Your task to perform on an android device: change your default location settings in chrome Image 0: 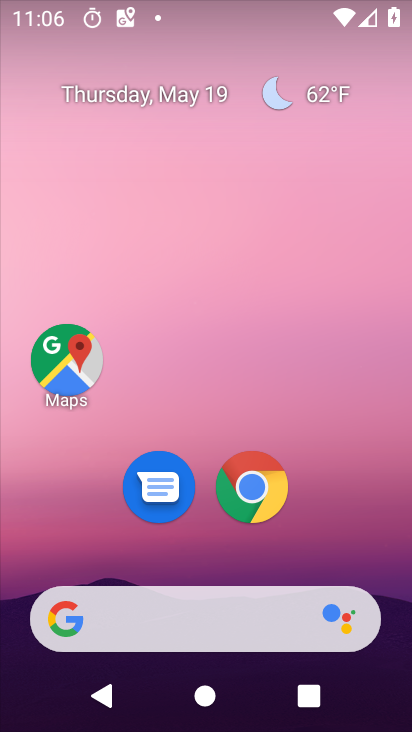
Step 0: click (247, 488)
Your task to perform on an android device: change your default location settings in chrome Image 1: 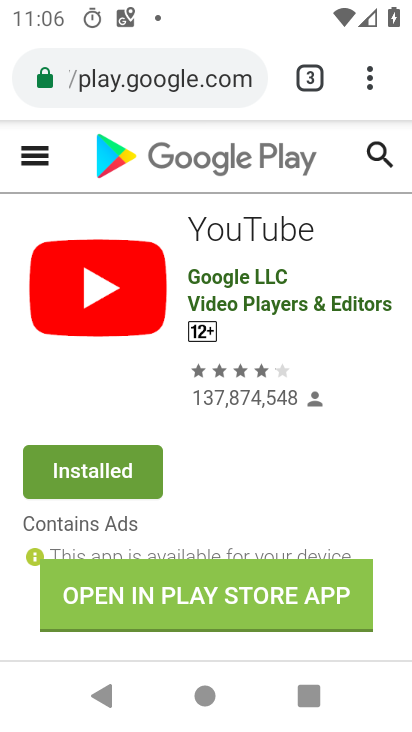
Step 1: click (370, 81)
Your task to perform on an android device: change your default location settings in chrome Image 2: 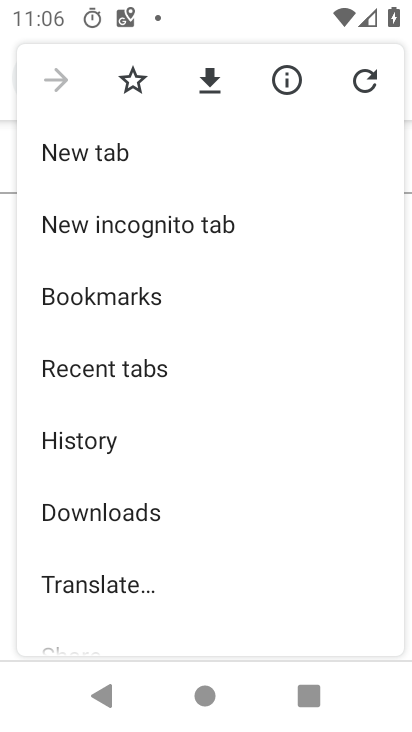
Step 2: drag from (198, 576) to (168, 369)
Your task to perform on an android device: change your default location settings in chrome Image 3: 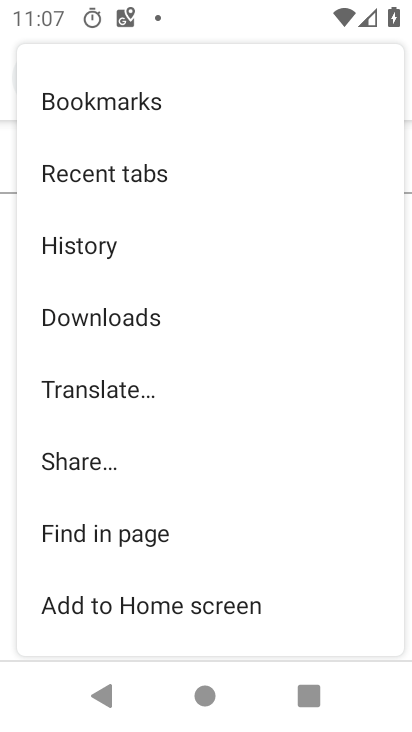
Step 3: drag from (241, 549) to (184, 329)
Your task to perform on an android device: change your default location settings in chrome Image 4: 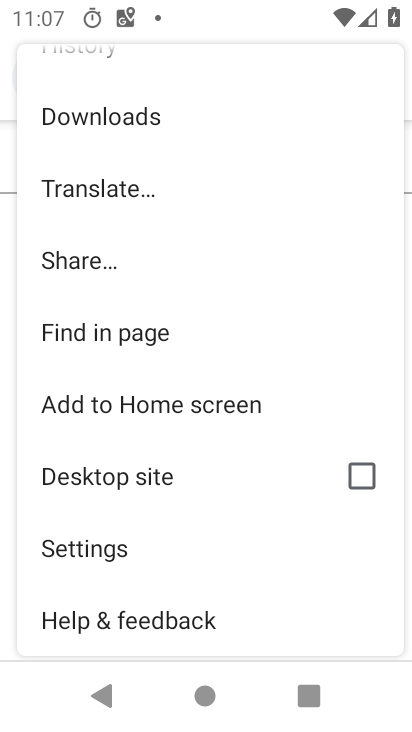
Step 4: click (94, 547)
Your task to perform on an android device: change your default location settings in chrome Image 5: 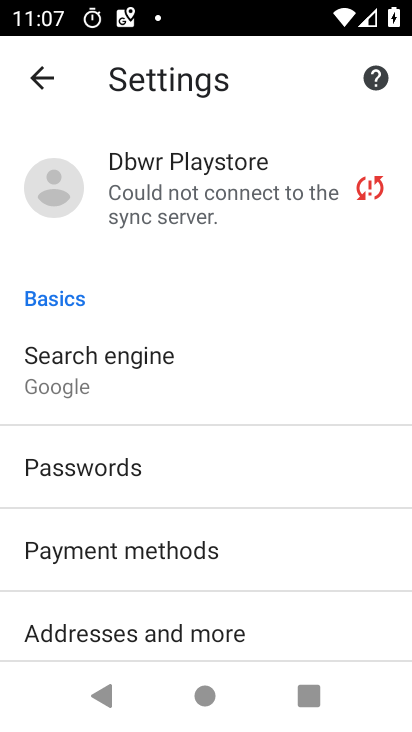
Step 5: drag from (290, 524) to (302, 440)
Your task to perform on an android device: change your default location settings in chrome Image 6: 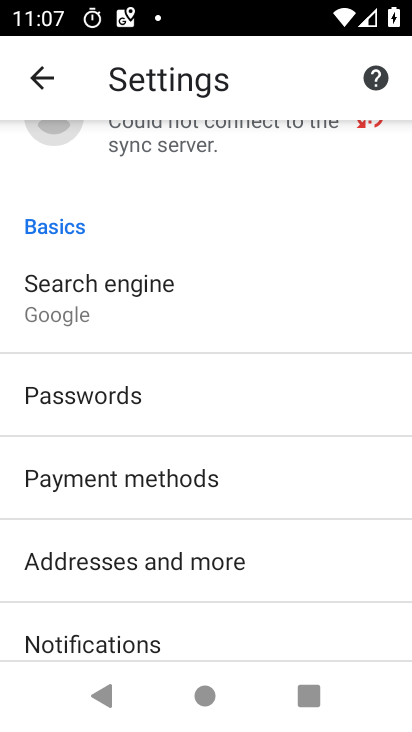
Step 6: drag from (261, 541) to (211, 350)
Your task to perform on an android device: change your default location settings in chrome Image 7: 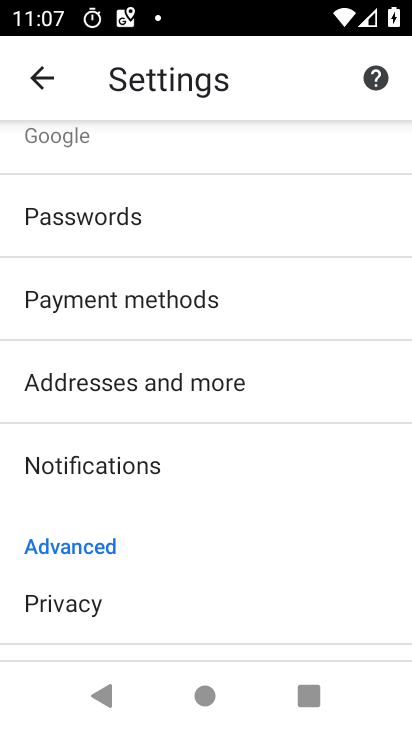
Step 7: drag from (191, 573) to (223, 259)
Your task to perform on an android device: change your default location settings in chrome Image 8: 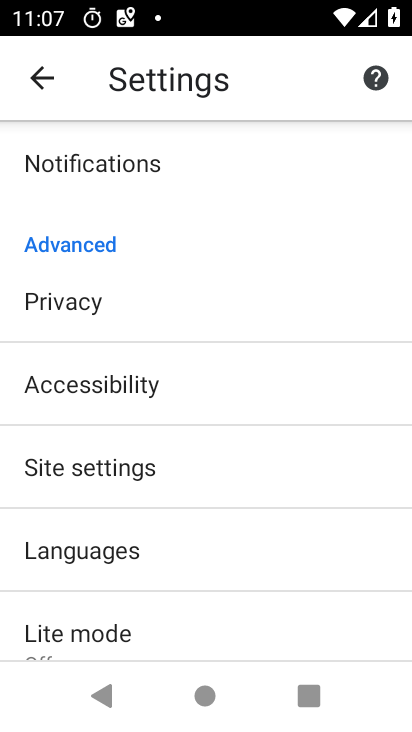
Step 8: click (156, 301)
Your task to perform on an android device: change your default location settings in chrome Image 9: 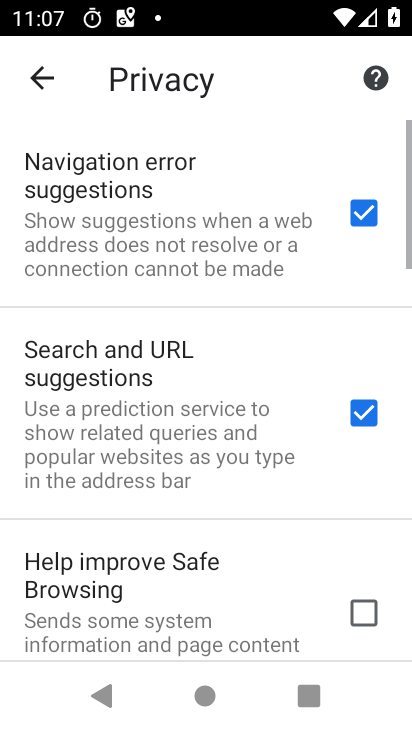
Step 9: drag from (158, 511) to (171, 375)
Your task to perform on an android device: change your default location settings in chrome Image 10: 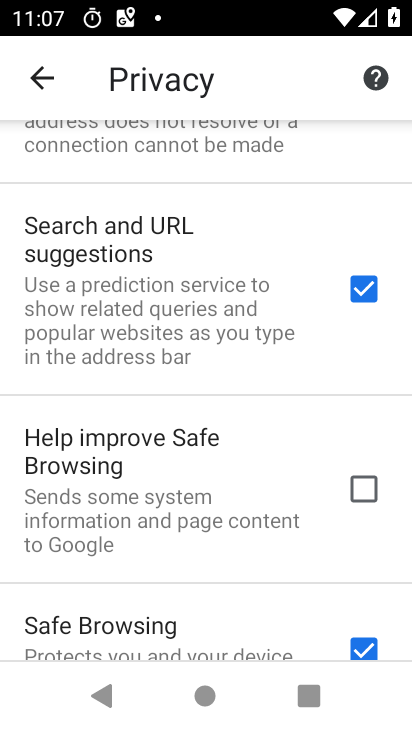
Step 10: drag from (137, 525) to (125, 311)
Your task to perform on an android device: change your default location settings in chrome Image 11: 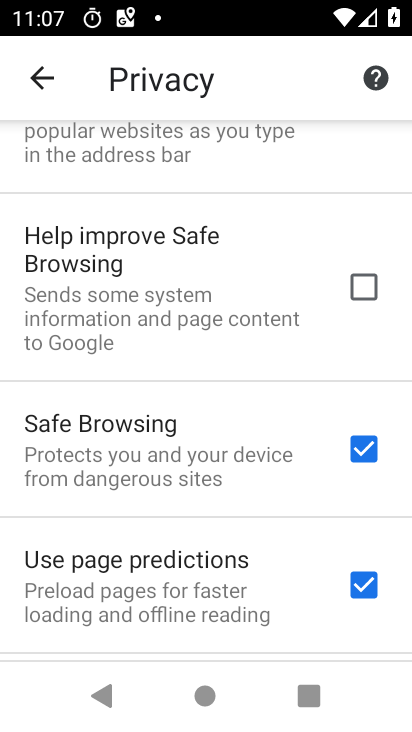
Step 11: drag from (156, 480) to (206, 258)
Your task to perform on an android device: change your default location settings in chrome Image 12: 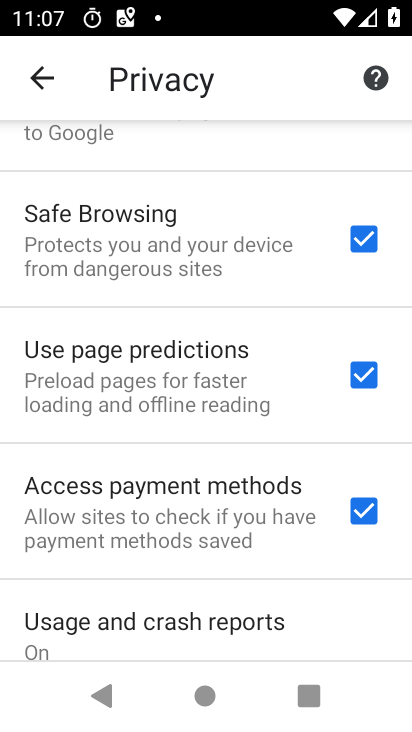
Step 12: drag from (127, 529) to (219, 197)
Your task to perform on an android device: change your default location settings in chrome Image 13: 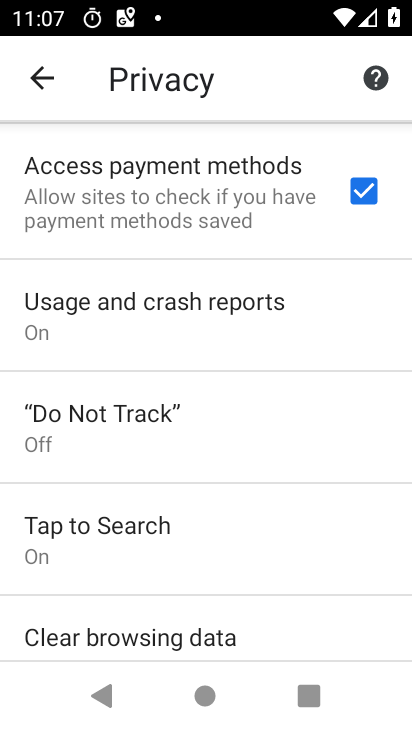
Step 13: drag from (188, 595) to (192, 379)
Your task to perform on an android device: change your default location settings in chrome Image 14: 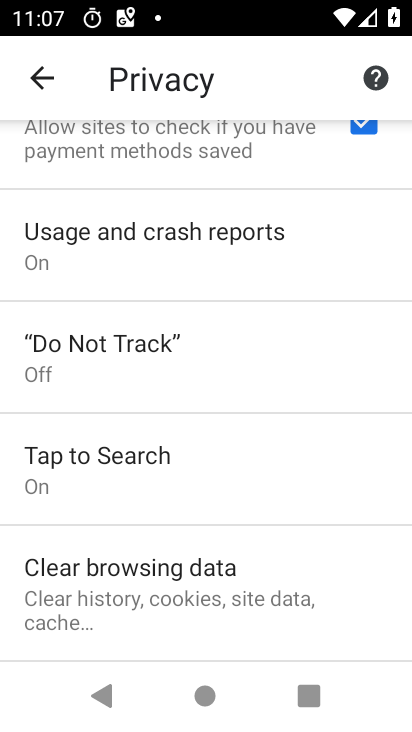
Step 14: press back button
Your task to perform on an android device: change your default location settings in chrome Image 15: 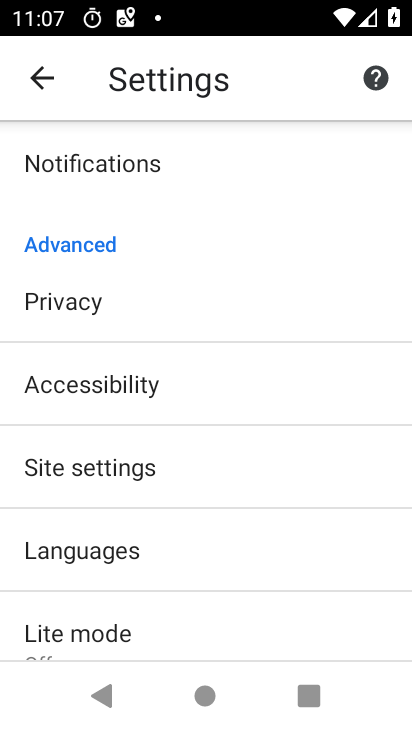
Step 15: click (108, 469)
Your task to perform on an android device: change your default location settings in chrome Image 16: 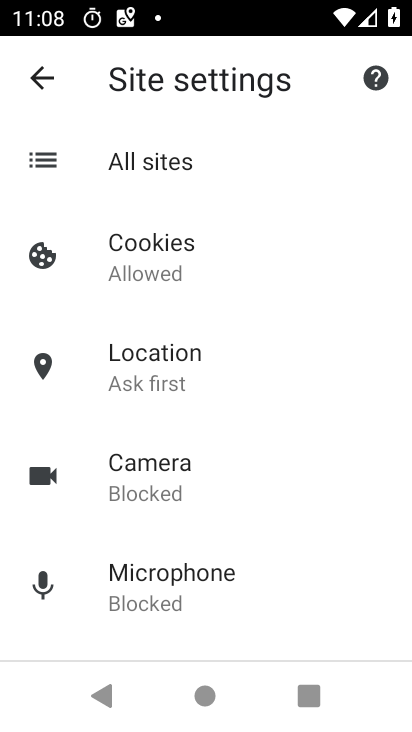
Step 16: click (165, 390)
Your task to perform on an android device: change your default location settings in chrome Image 17: 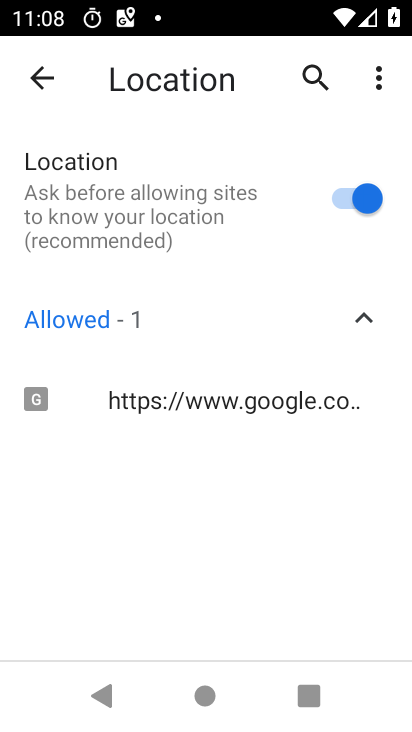
Step 17: click (370, 194)
Your task to perform on an android device: change your default location settings in chrome Image 18: 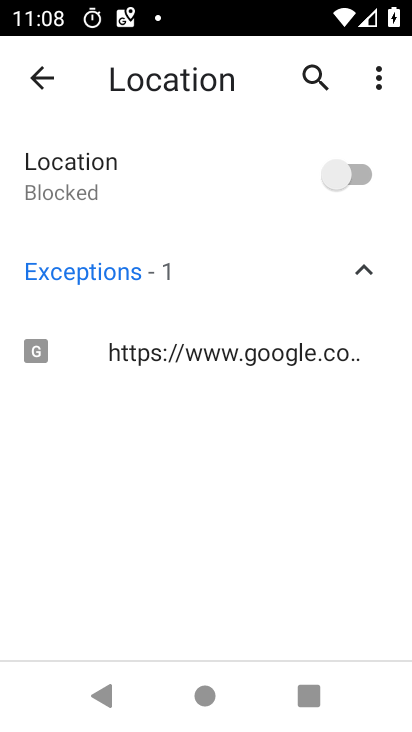
Step 18: task complete